Your task to perform on an android device: turn on notifications settings in the gmail app Image 0: 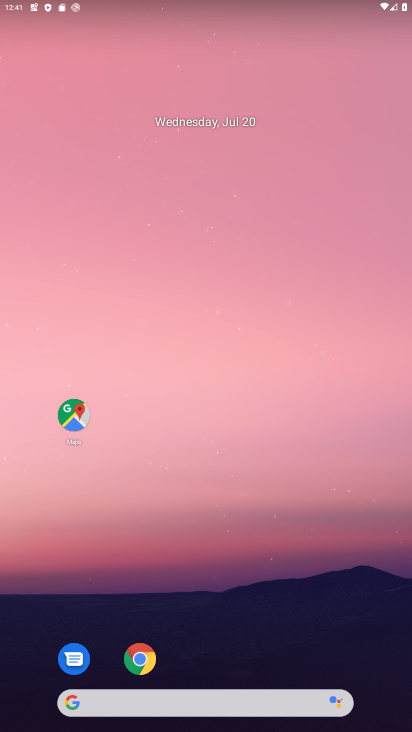
Step 0: click (368, 470)
Your task to perform on an android device: turn on notifications settings in the gmail app Image 1: 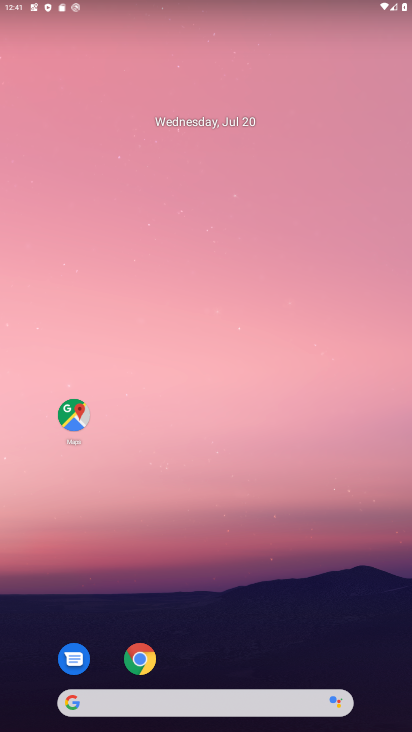
Step 1: drag from (272, 574) to (215, 139)
Your task to perform on an android device: turn on notifications settings in the gmail app Image 2: 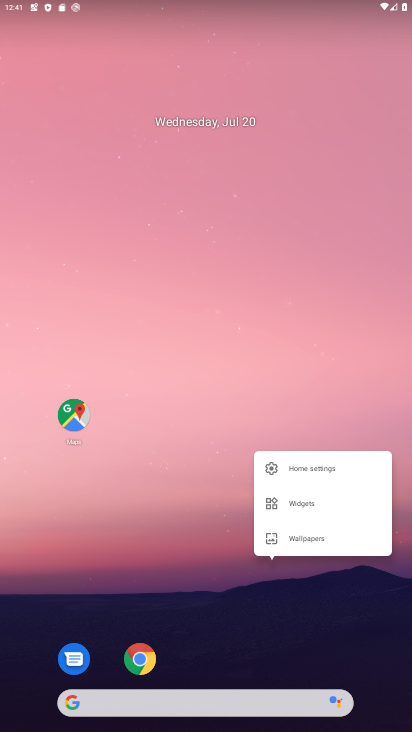
Step 2: click (195, 308)
Your task to perform on an android device: turn on notifications settings in the gmail app Image 3: 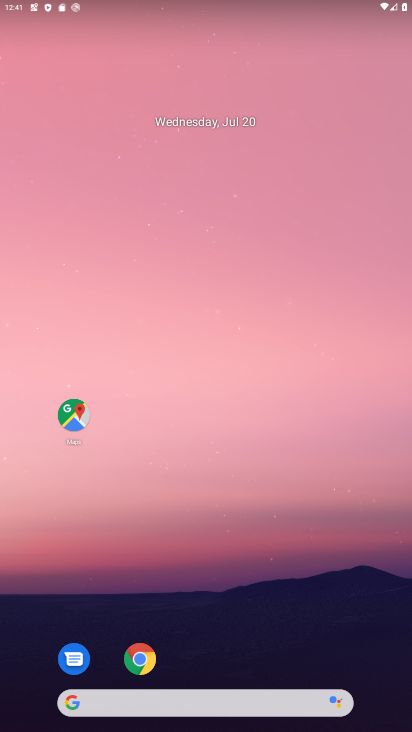
Step 3: drag from (239, 588) to (208, 237)
Your task to perform on an android device: turn on notifications settings in the gmail app Image 4: 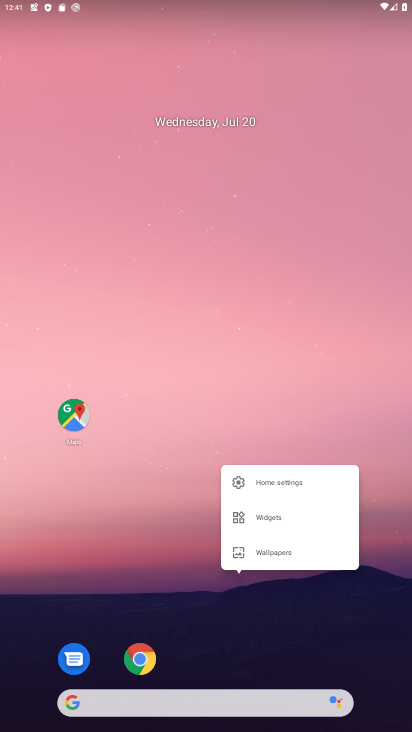
Step 4: click (230, 351)
Your task to perform on an android device: turn on notifications settings in the gmail app Image 5: 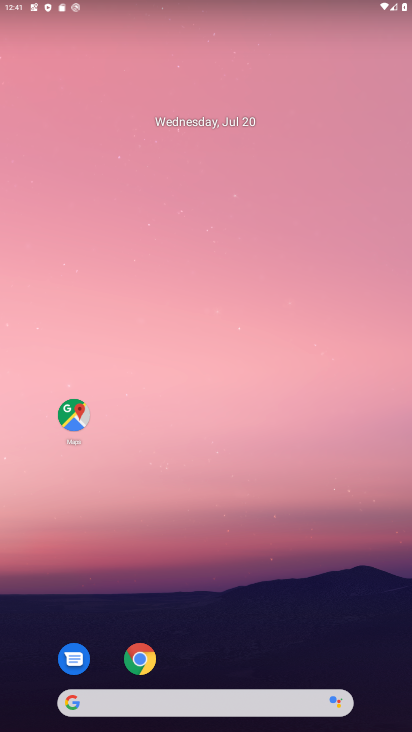
Step 5: drag from (257, 507) to (245, 93)
Your task to perform on an android device: turn on notifications settings in the gmail app Image 6: 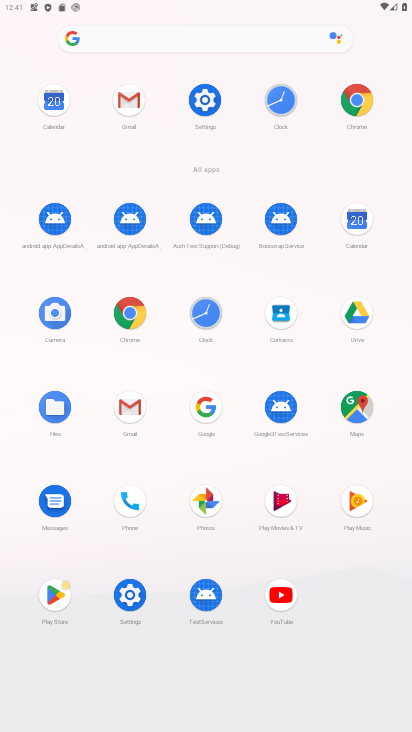
Step 6: click (124, 416)
Your task to perform on an android device: turn on notifications settings in the gmail app Image 7: 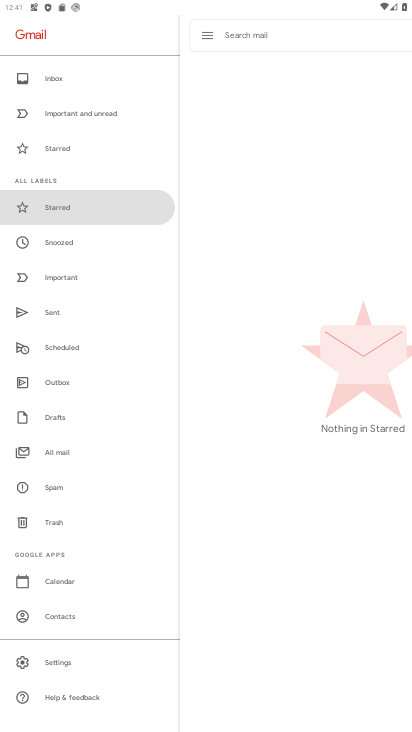
Step 7: task complete